Your task to perform on an android device: turn on translation in the chrome app Image 0: 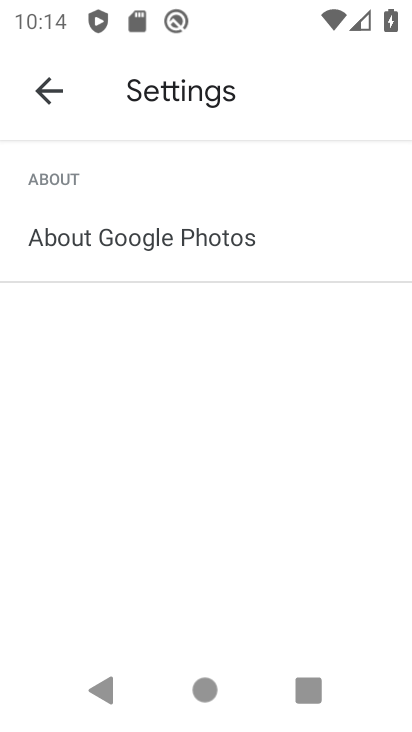
Step 0: press home button
Your task to perform on an android device: turn on translation in the chrome app Image 1: 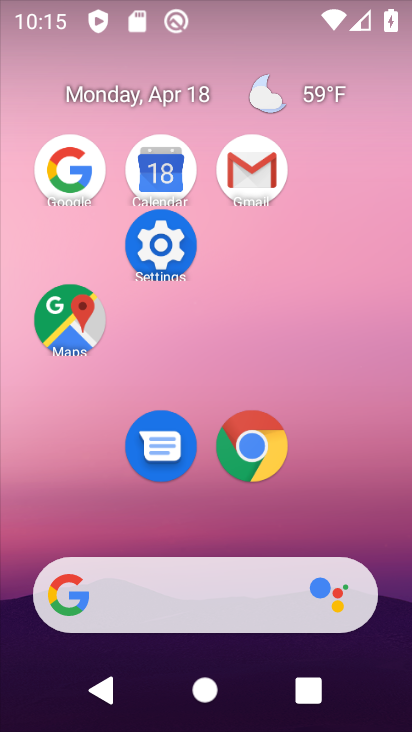
Step 1: click (251, 444)
Your task to perform on an android device: turn on translation in the chrome app Image 2: 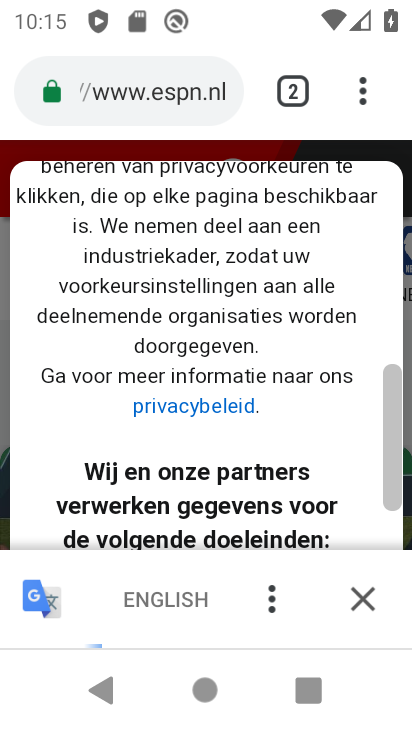
Step 2: drag from (358, 89) to (133, 470)
Your task to perform on an android device: turn on translation in the chrome app Image 3: 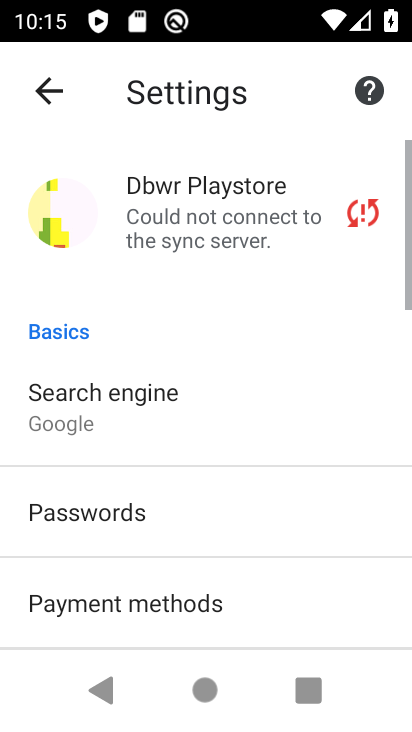
Step 3: drag from (177, 542) to (232, 179)
Your task to perform on an android device: turn on translation in the chrome app Image 4: 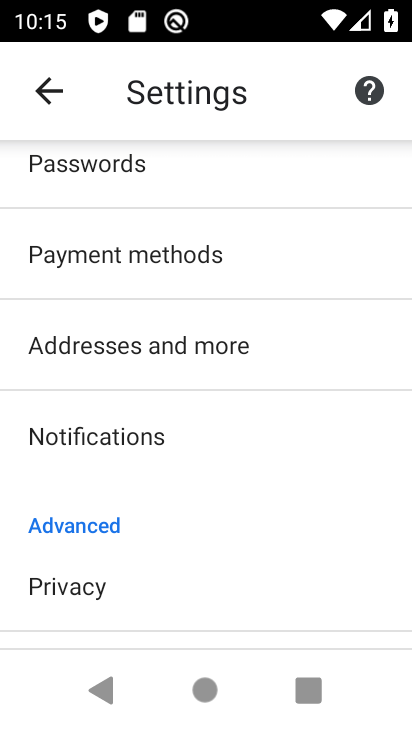
Step 4: drag from (223, 440) to (227, 183)
Your task to perform on an android device: turn on translation in the chrome app Image 5: 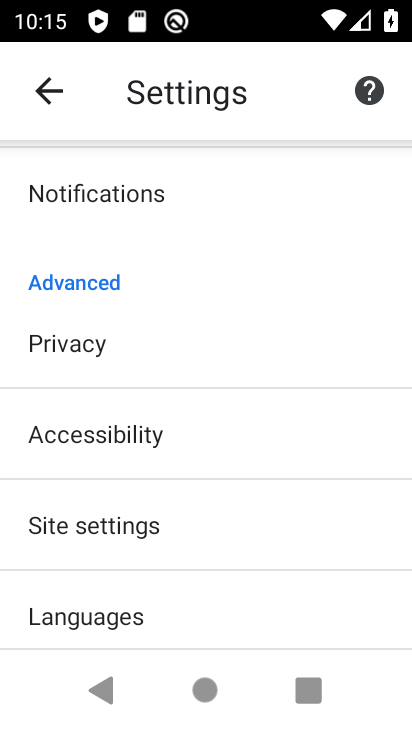
Step 5: drag from (144, 496) to (136, 359)
Your task to perform on an android device: turn on translation in the chrome app Image 6: 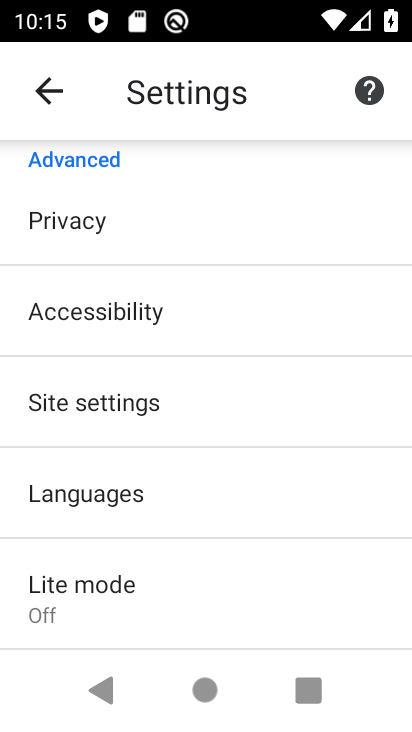
Step 6: click (121, 491)
Your task to perform on an android device: turn on translation in the chrome app Image 7: 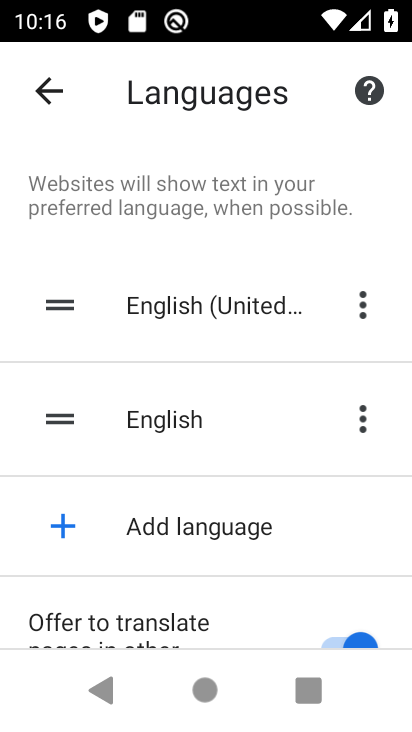
Step 7: task complete